Your task to perform on an android device: change your default location settings in chrome Image 0: 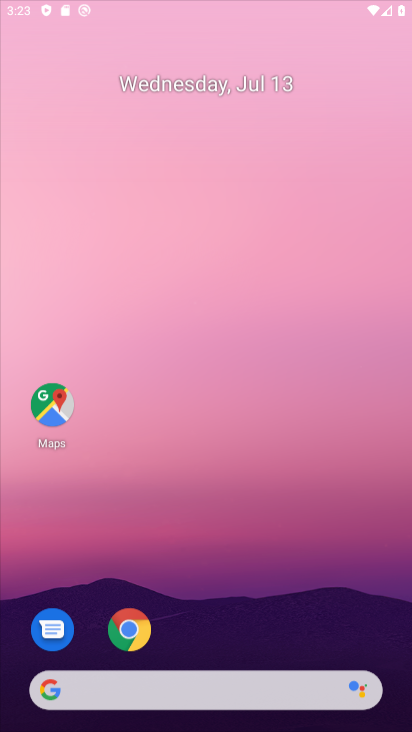
Step 0: click (124, 621)
Your task to perform on an android device: change your default location settings in chrome Image 1: 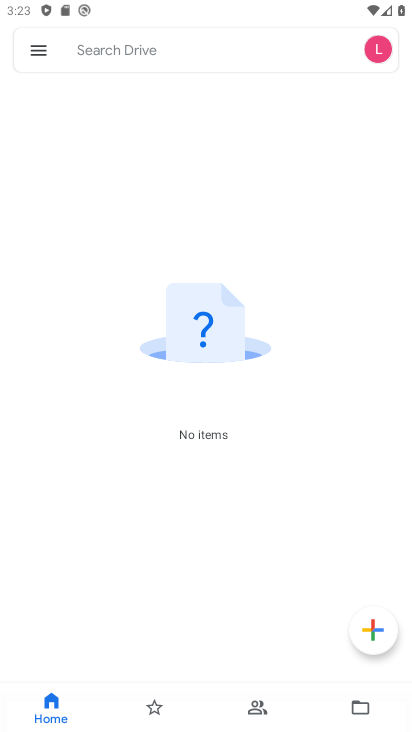
Step 1: press home button
Your task to perform on an android device: change your default location settings in chrome Image 2: 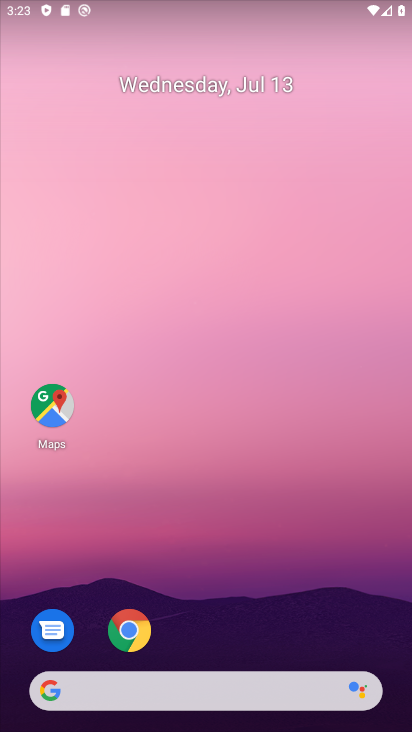
Step 2: click (129, 629)
Your task to perform on an android device: change your default location settings in chrome Image 3: 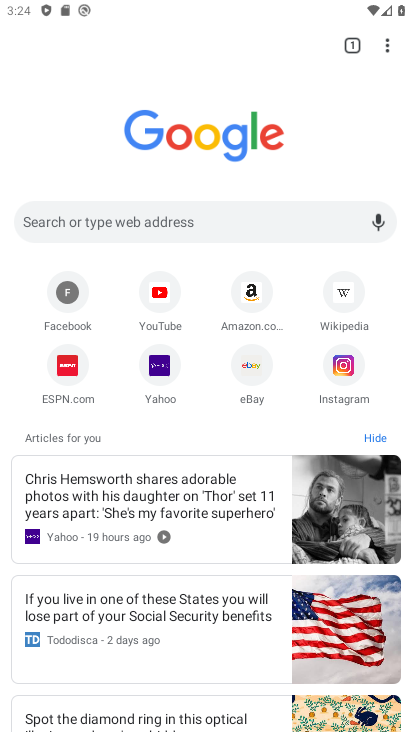
Step 3: click (388, 44)
Your task to perform on an android device: change your default location settings in chrome Image 4: 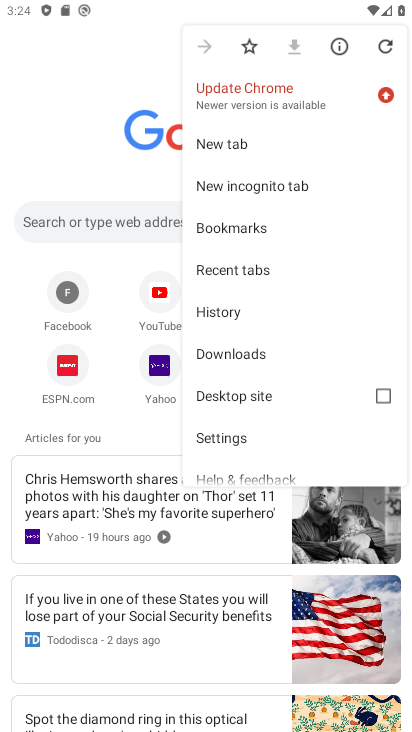
Step 4: click (226, 438)
Your task to perform on an android device: change your default location settings in chrome Image 5: 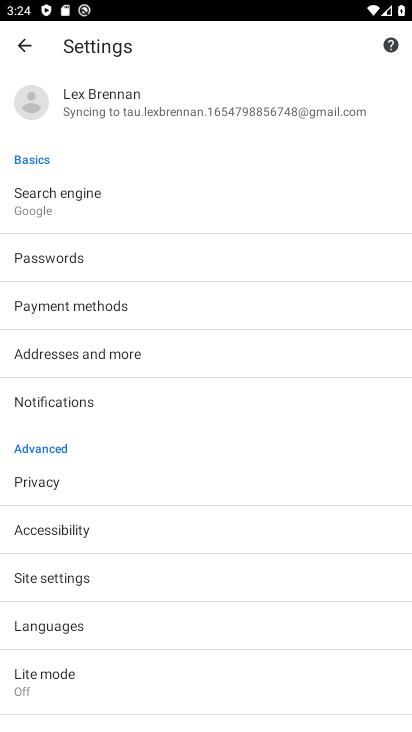
Step 5: click (86, 573)
Your task to perform on an android device: change your default location settings in chrome Image 6: 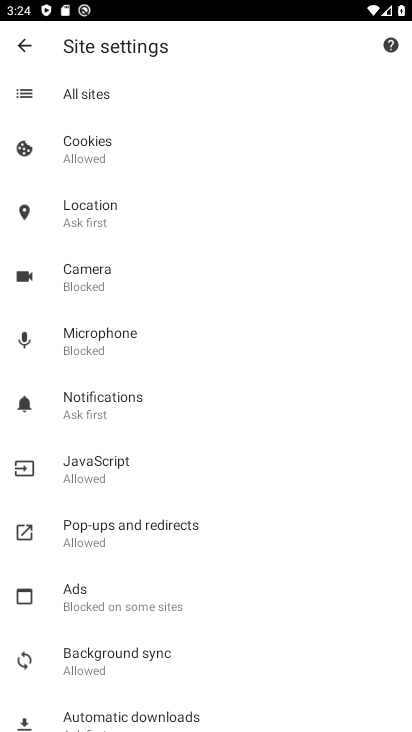
Step 6: click (91, 203)
Your task to perform on an android device: change your default location settings in chrome Image 7: 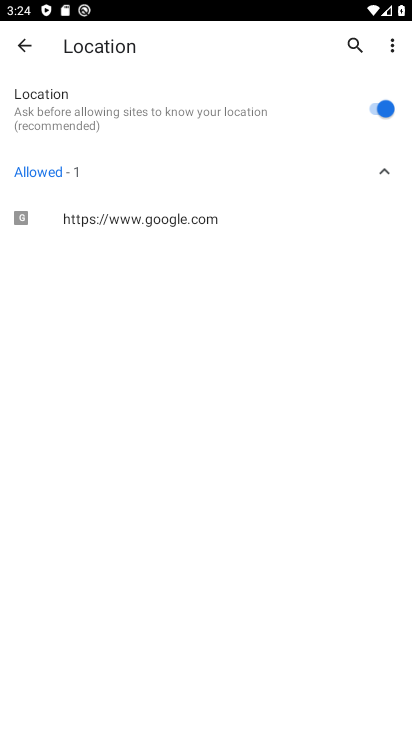
Step 7: click (386, 105)
Your task to perform on an android device: change your default location settings in chrome Image 8: 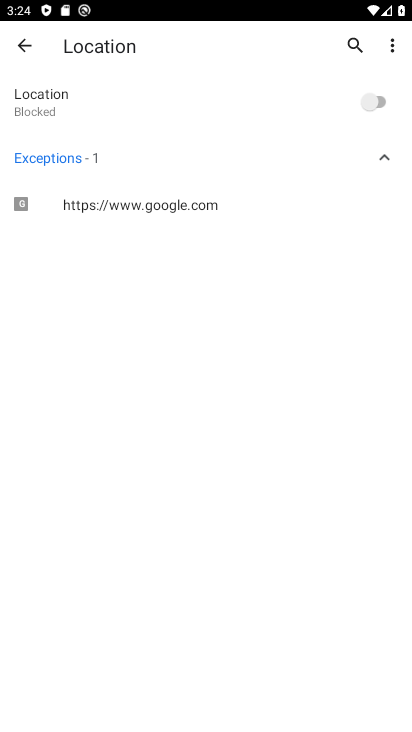
Step 8: task complete